Your task to perform on an android device: Open sound settings Image 0: 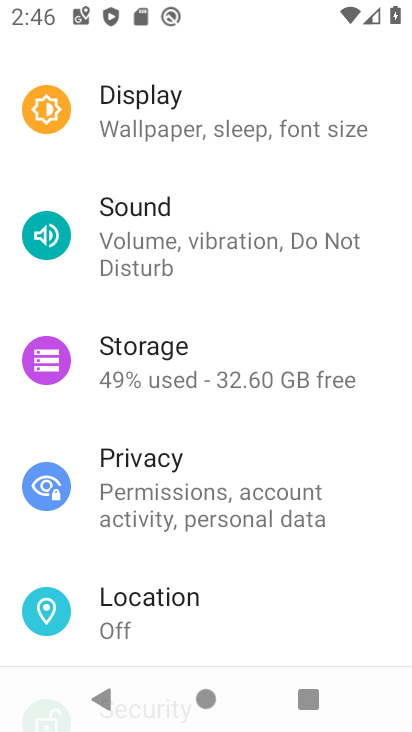
Step 0: press home button
Your task to perform on an android device: Open sound settings Image 1: 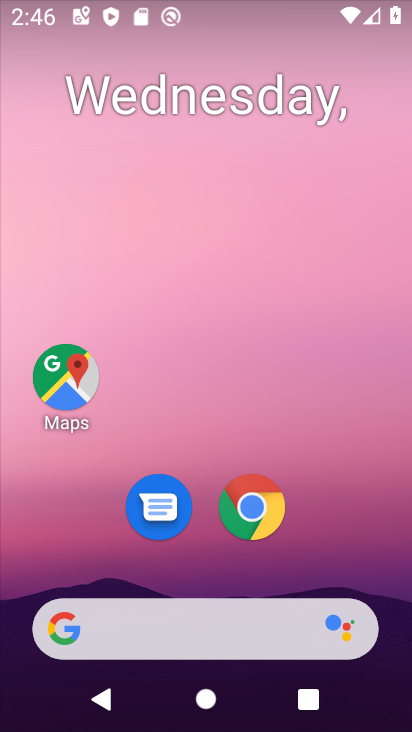
Step 1: drag from (328, 540) to (346, 179)
Your task to perform on an android device: Open sound settings Image 2: 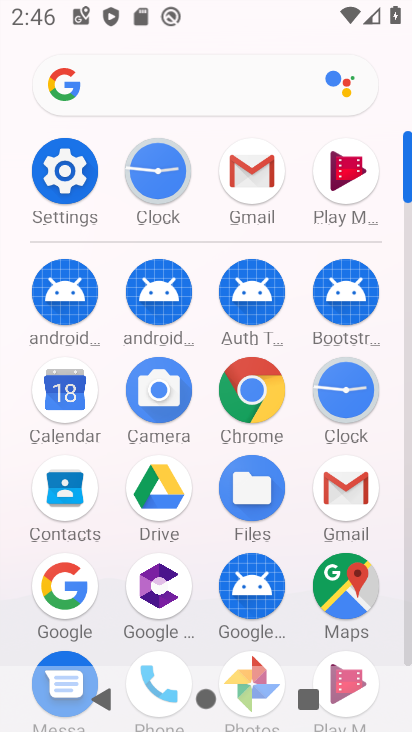
Step 2: click (65, 162)
Your task to perform on an android device: Open sound settings Image 3: 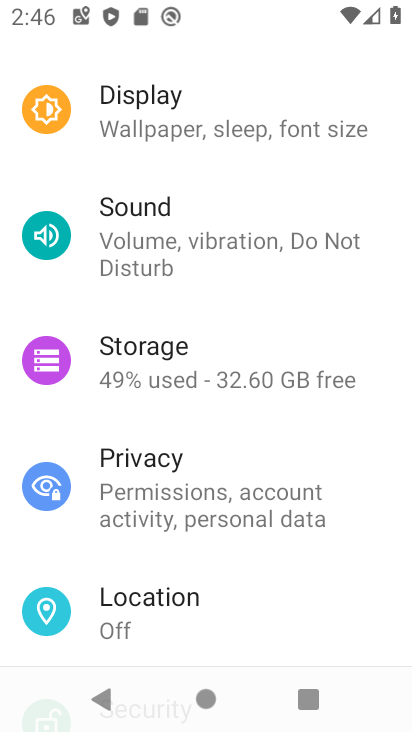
Step 3: click (161, 241)
Your task to perform on an android device: Open sound settings Image 4: 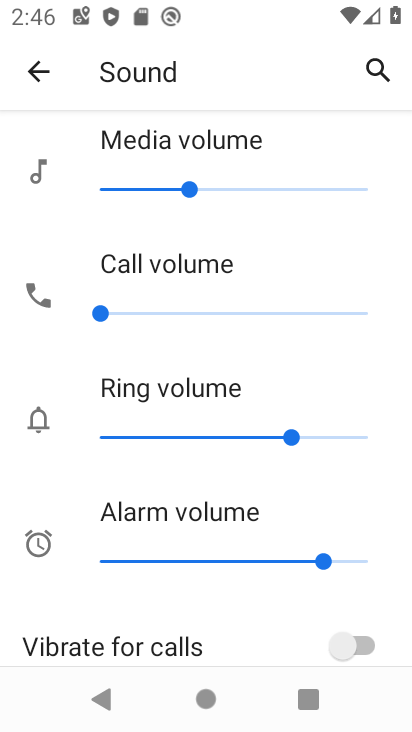
Step 4: task complete